Your task to perform on an android device: open sync settings in chrome Image 0: 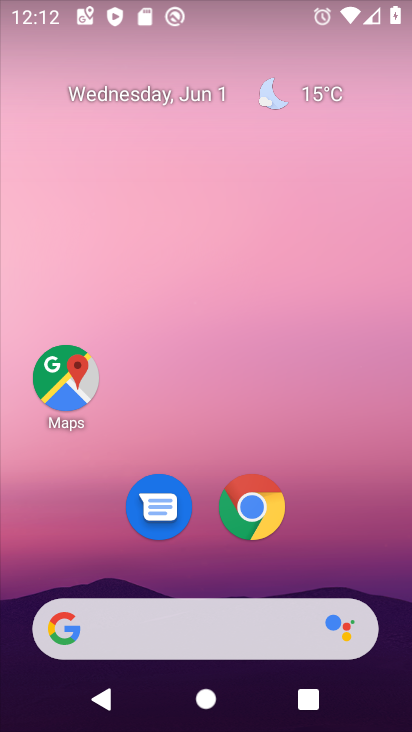
Step 0: drag from (327, 548) to (293, 165)
Your task to perform on an android device: open sync settings in chrome Image 1: 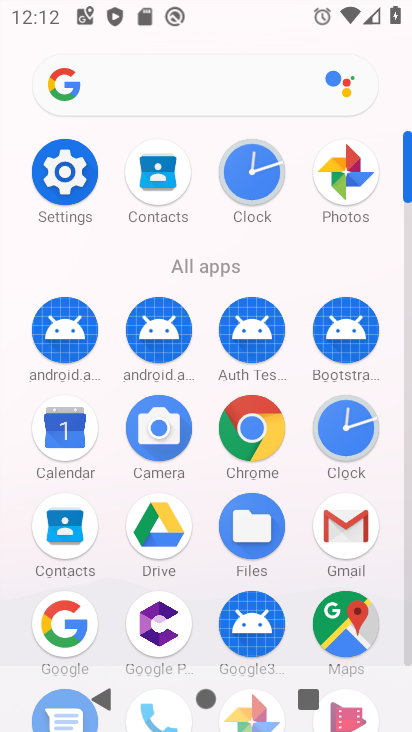
Step 1: click (251, 428)
Your task to perform on an android device: open sync settings in chrome Image 2: 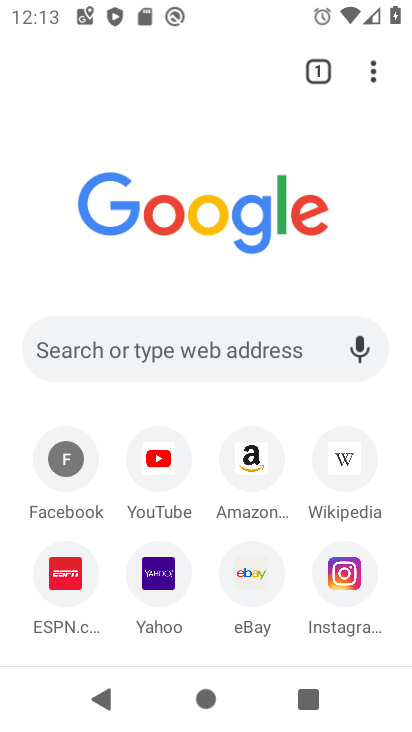
Step 2: click (371, 73)
Your task to perform on an android device: open sync settings in chrome Image 3: 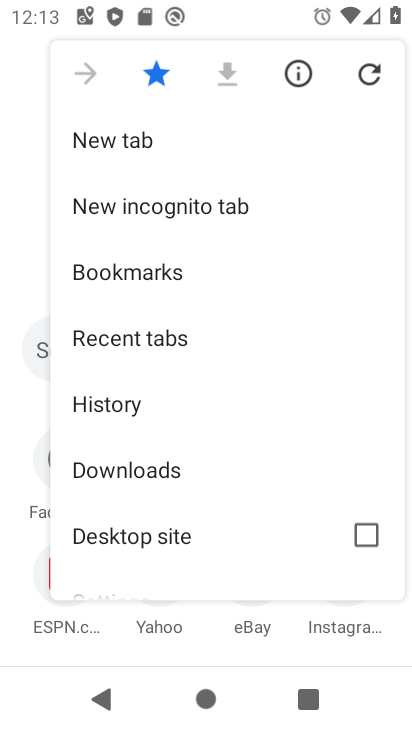
Step 3: drag from (136, 444) to (142, 306)
Your task to perform on an android device: open sync settings in chrome Image 4: 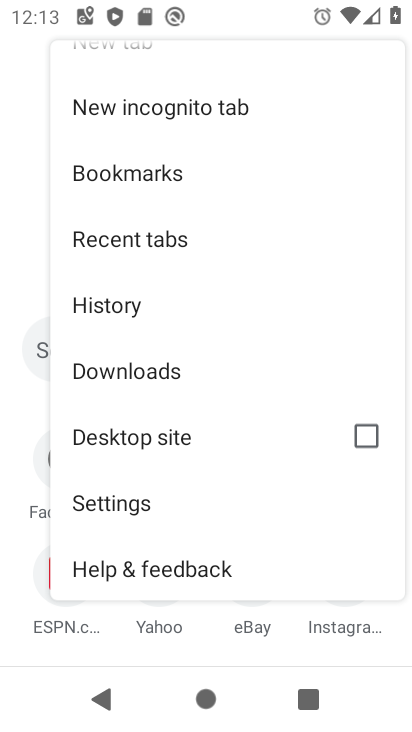
Step 4: drag from (147, 459) to (181, 360)
Your task to perform on an android device: open sync settings in chrome Image 5: 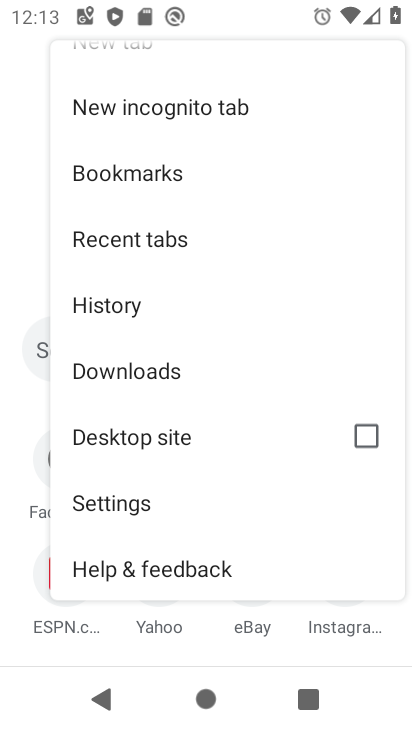
Step 5: click (117, 500)
Your task to perform on an android device: open sync settings in chrome Image 6: 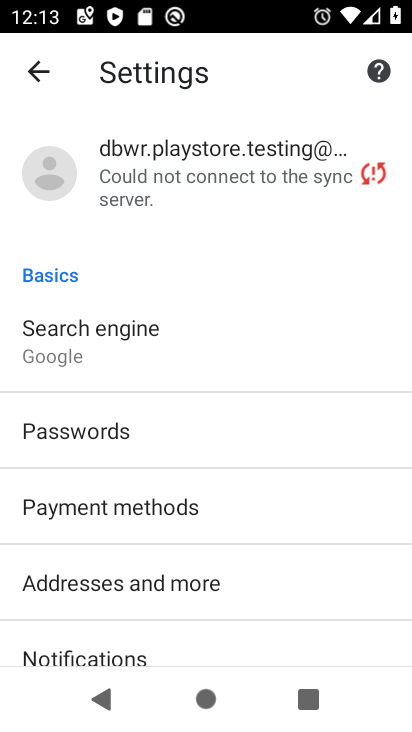
Step 6: drag from (129, 598) to (146, 485)
Your task to perform on an android device: open sync settings in chrome Image 7: 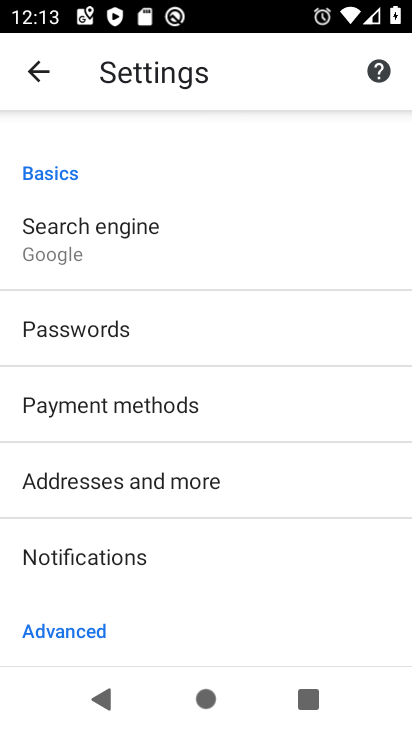
Step 7: drag from (152, 594) to (127, 460)
Your task to perform on an android device: open sync settings in chrome Image 8: 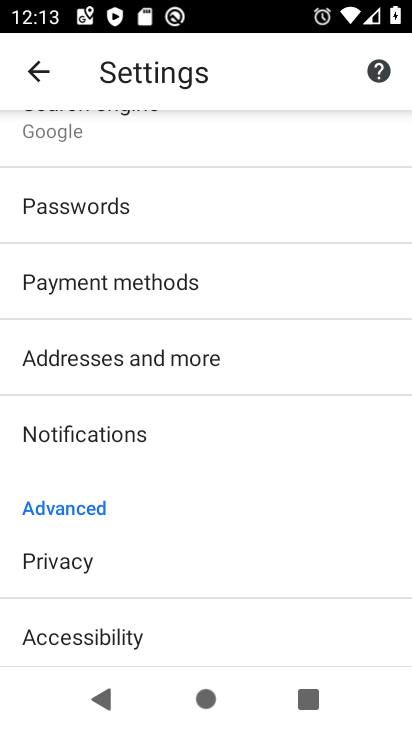
Step 8: drag from (108, 603) to (121, 493)
Your task to perform on an android device: open sync settings in chrome Image 9: 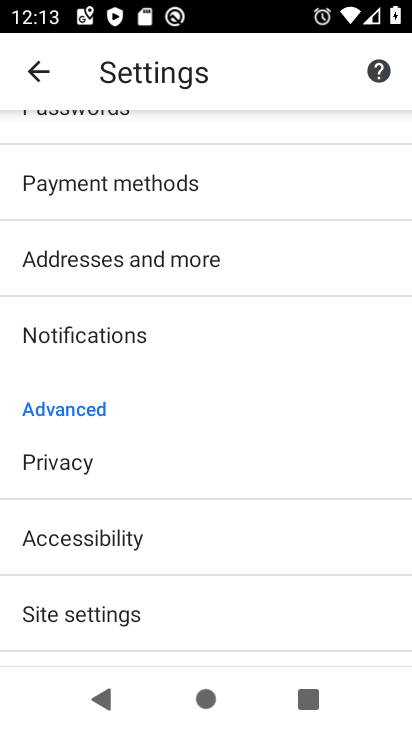
Step 9: drag from (116, 582) to (140, 429)
Your task to perform on an android device: open sync settings in chrome Image 10: 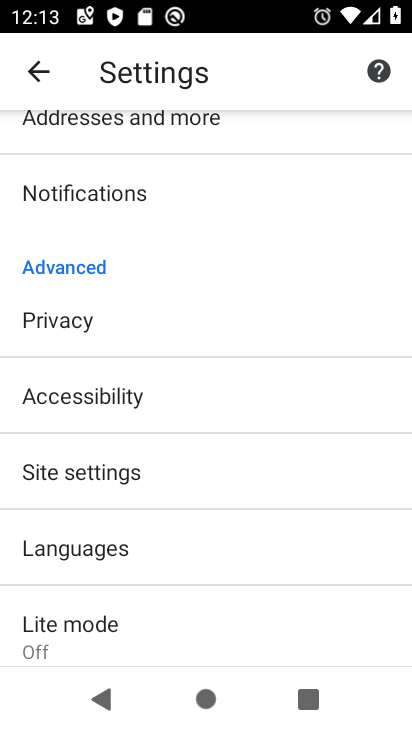
Step 10: click (98, 467)
Your task to perform on an android device: open sync settings in chrome Image 11: 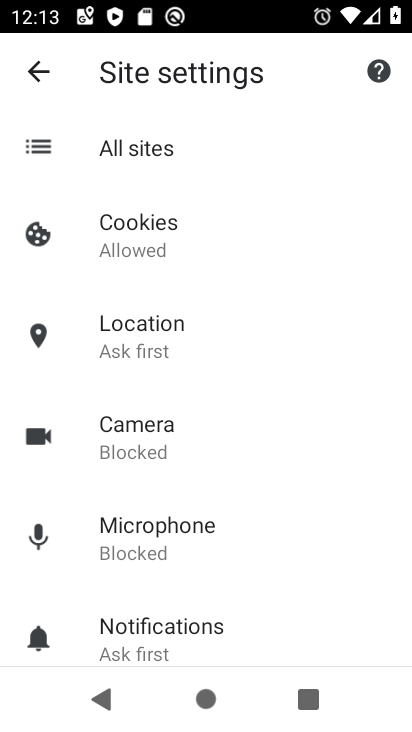
Step 11: drag from (153, 603) to (133, 456)
Your task to perform on an android device: open sync settings in chrome Image 12: 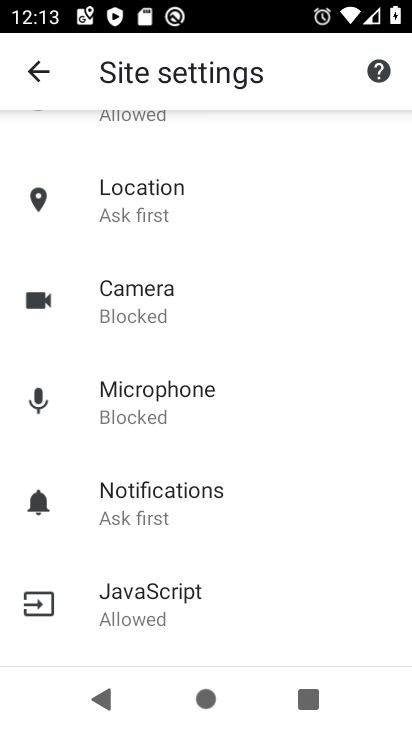
Step 12: drag from (131, 550) to (133, 356)
Your task to perform on an android device: open sync settings in chrome Image 13: 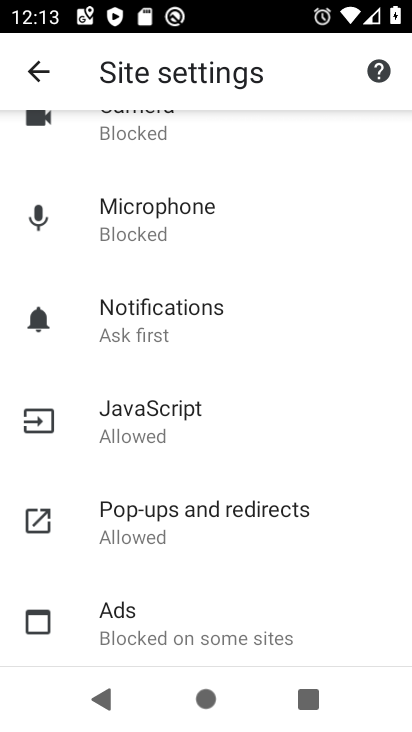
Step 13: drag from (156, 478) to (158, 350)
Your task to perform on an android device: open sync settings in chrome Image 14: 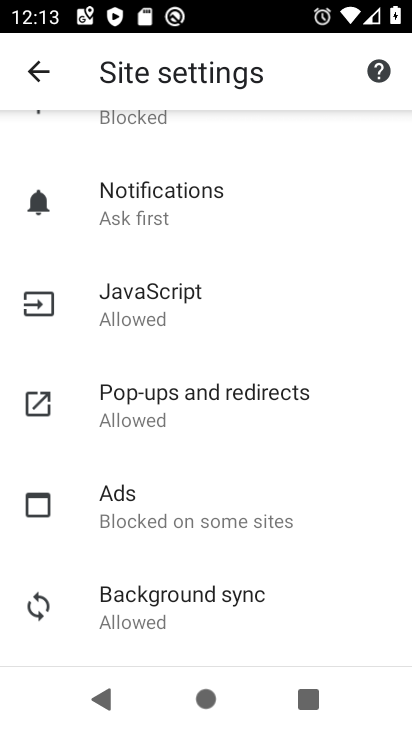
Step 14: click (154, 596)
Your task to perform on an android device: open sync settings in chrome Image 15: 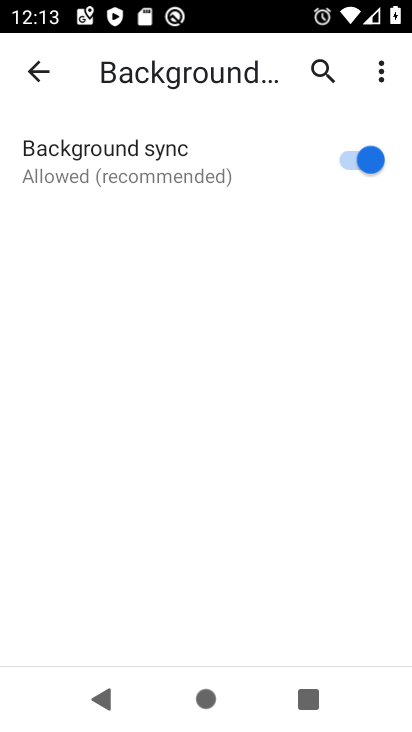
Step 15: task complete